Your task to perform on an android device: Open calendar and show me the second week of next month Image 0: 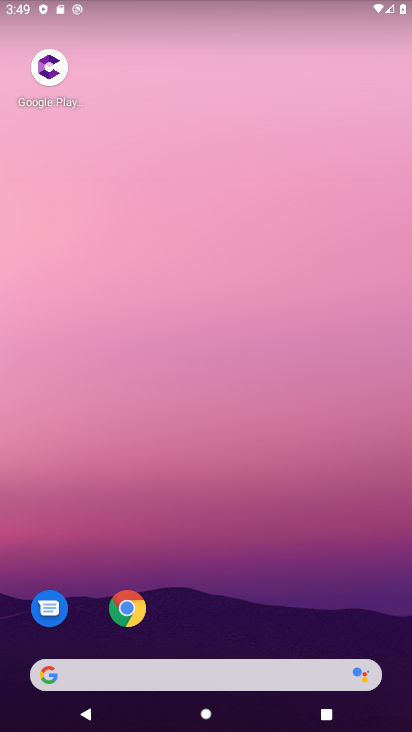
Step 0: drag from (257, 631) to (247, 159)
Your task to perform on an android device: Open calendar and show me the second week of next month Image 1: 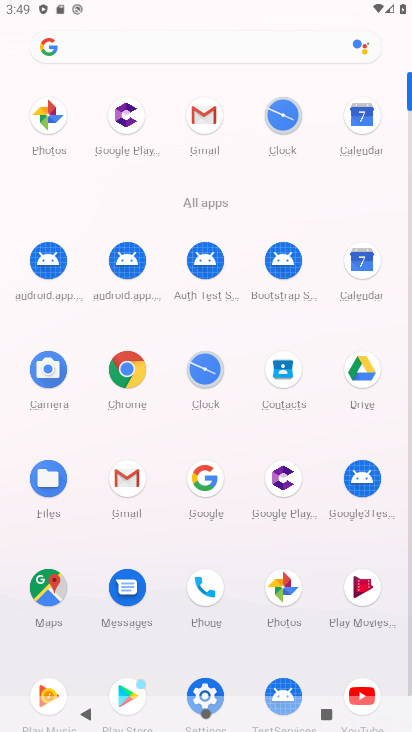
Step 1: click (357, 115)
Your task to perform on an android device: Open calendar and show me the second week of next month Image 2: 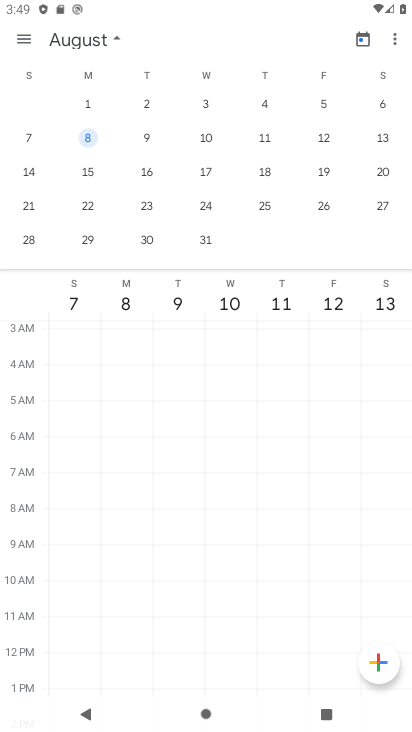
Step 2: press home button
Your task to perform on an android device: Open calendar and show me the second week of next month Image 3: 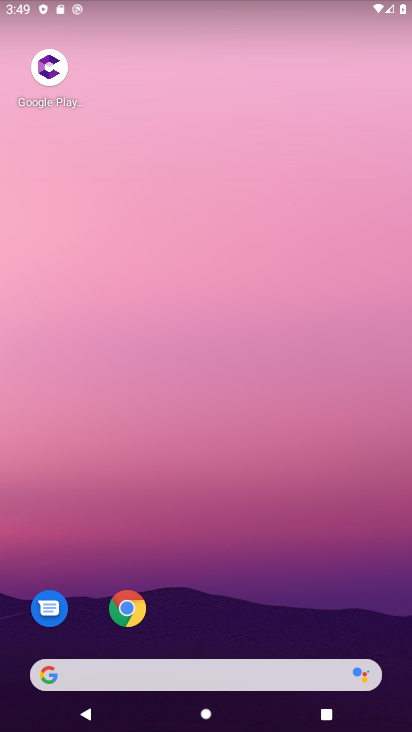
Step 3: drag from (264, 454) to (256, 162)
Your task to perform on an android device: Open calendar and show me the second week of next month Image 4: 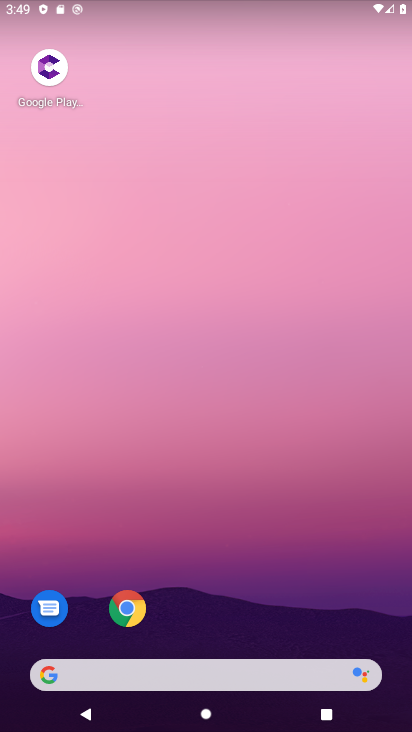
Step 4: drag from (266, 561) to (233, 196)
Your task to perform on an android device: Open calendar and show me the second week of next month Image 5: 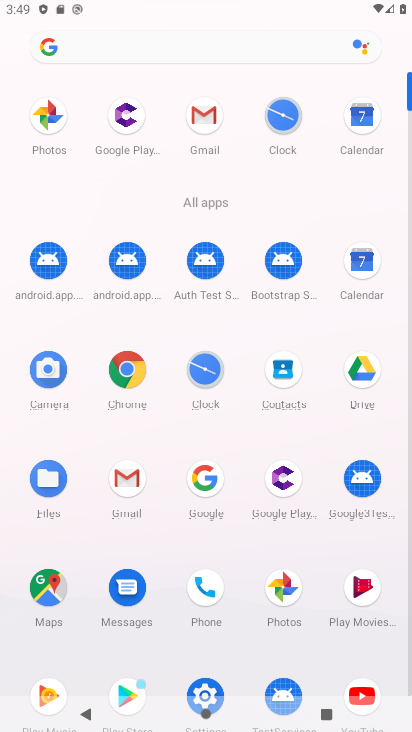
Step 5: click (356, 110)
Your task to perform on an android device: Open calendar and show me the second week of next month Image 6: 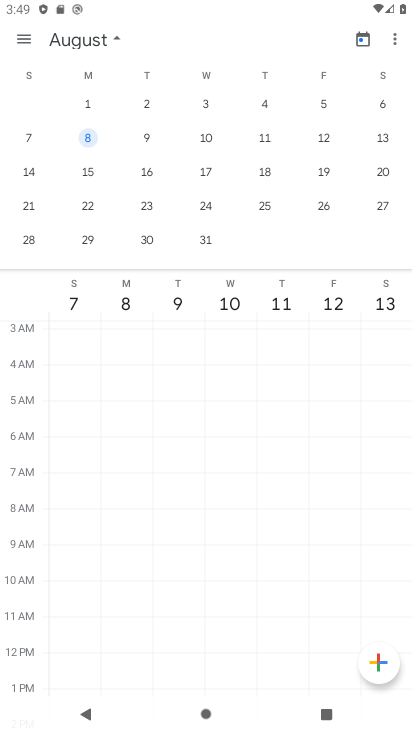
Step 6: click (145, 140)
Your task to perform on an android device: Open calendar and show me the second week of next month Image 7: 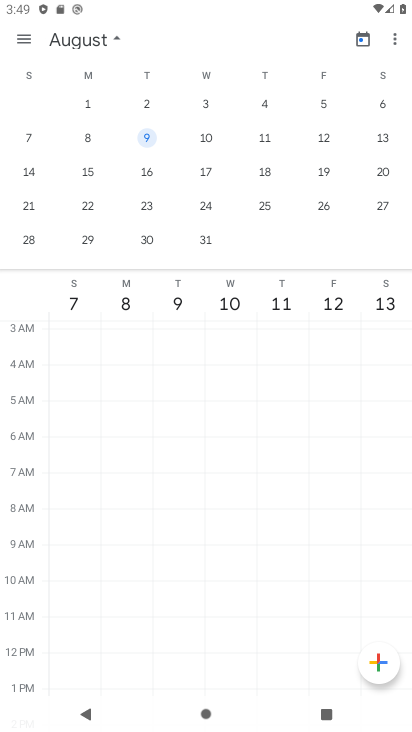
Step 7: task complete